Your task to perform on an android device: open app "Upside-Cash back on gas & food" (install if not already installed), go to login, and select forgot password Image 0: 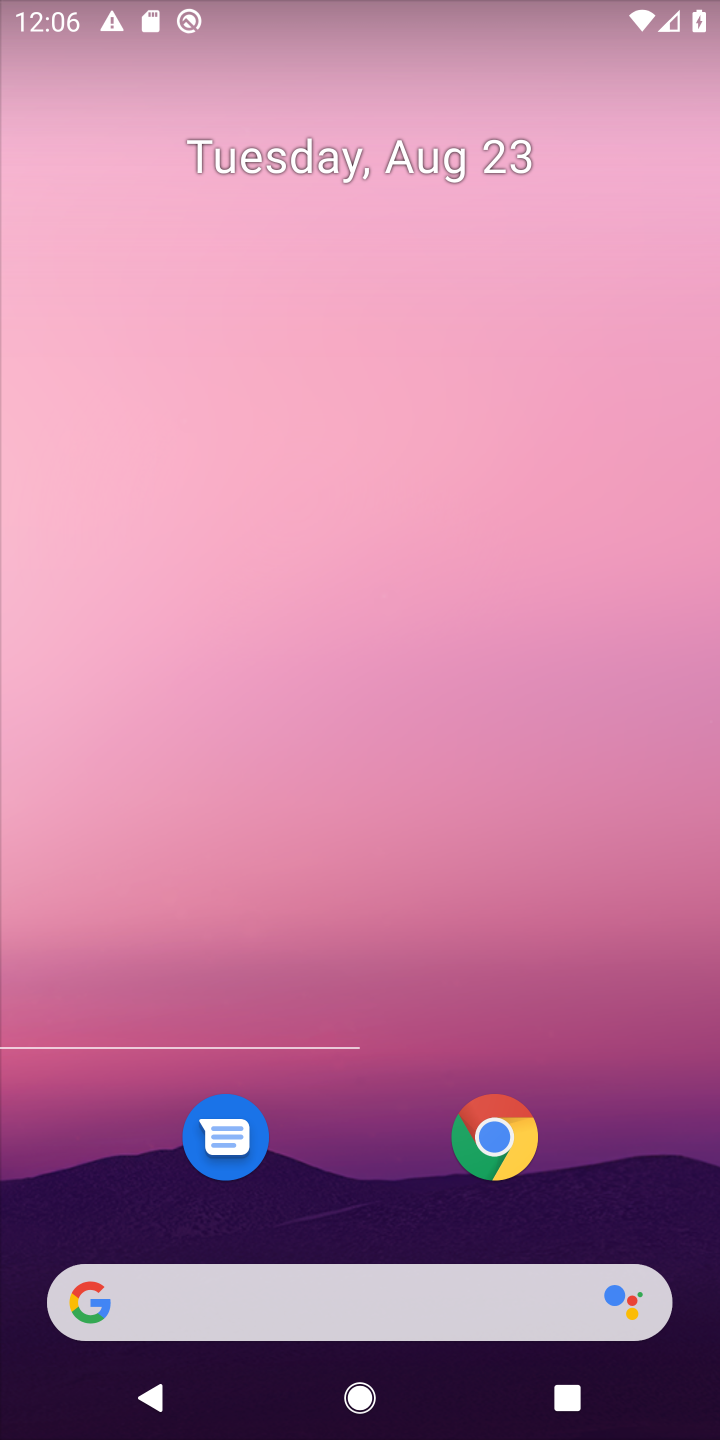
Step 0: press home button
Your task to perform on an android device: open app "Upside-Cash back on gas & food" (install if not already installed), go to login, and select forgot password Image 1: 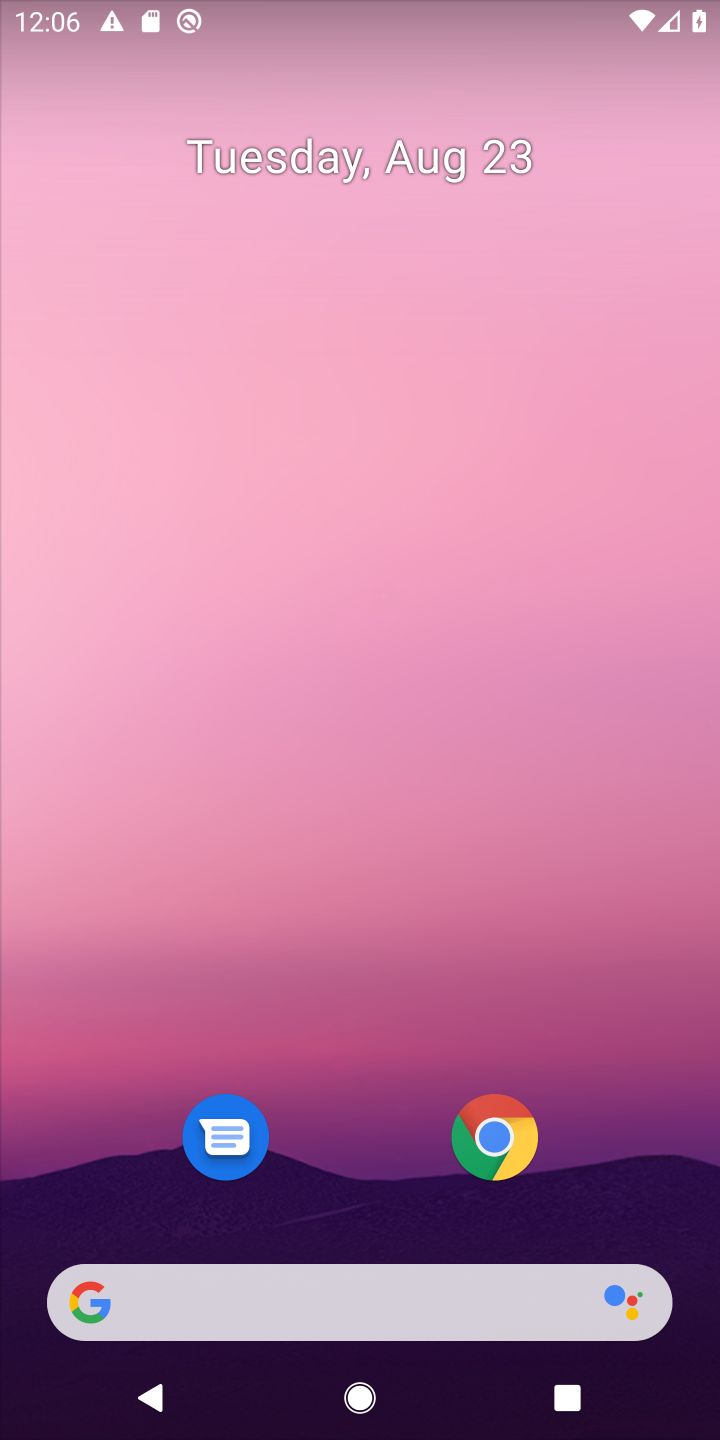
Step 1: drag from (318, 1005) to (475, 18)
Your task to perform on an android device: open app "Upside-Cash back on gas & food" (install if not already installed), go to login, and select forgot password Image 2: 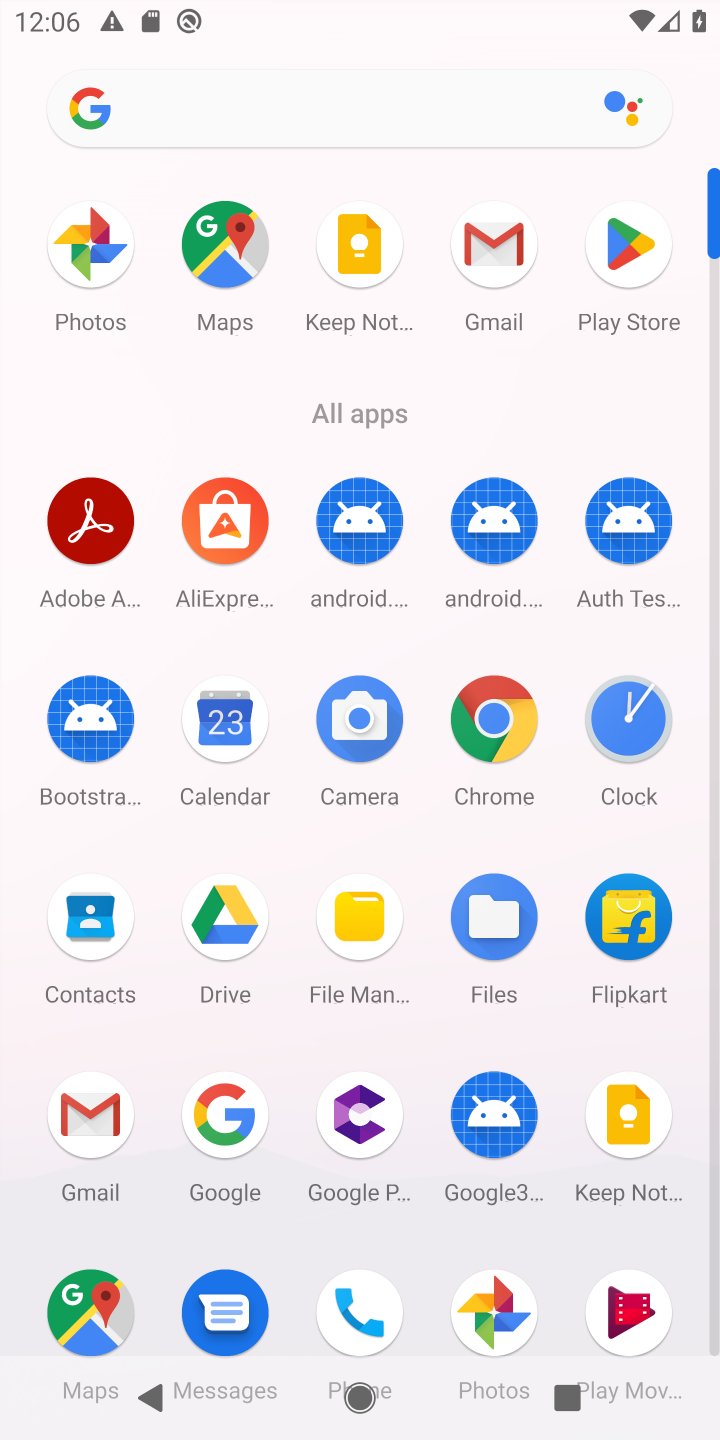
Step 2: click (629, 254)
Your task to perform on an android device: open app "Upside-Cash back on gas & food" (install if not already installed), go to login, and select forgot password Image 3: 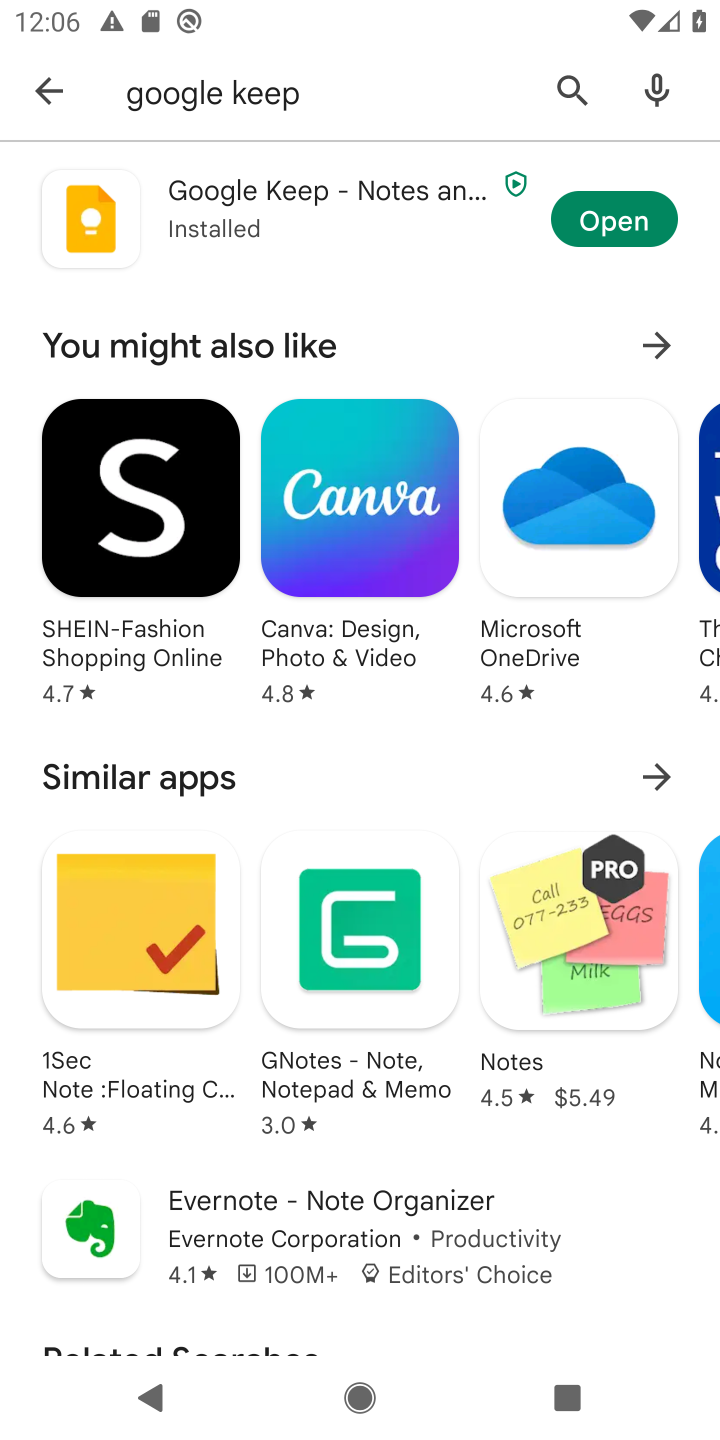
Step 3: click (44, 89)
Your task to perform on an android device: open app "Upside-Cash back on gas & food" (install if not already installed), go to login, and select forgot password Image 4: 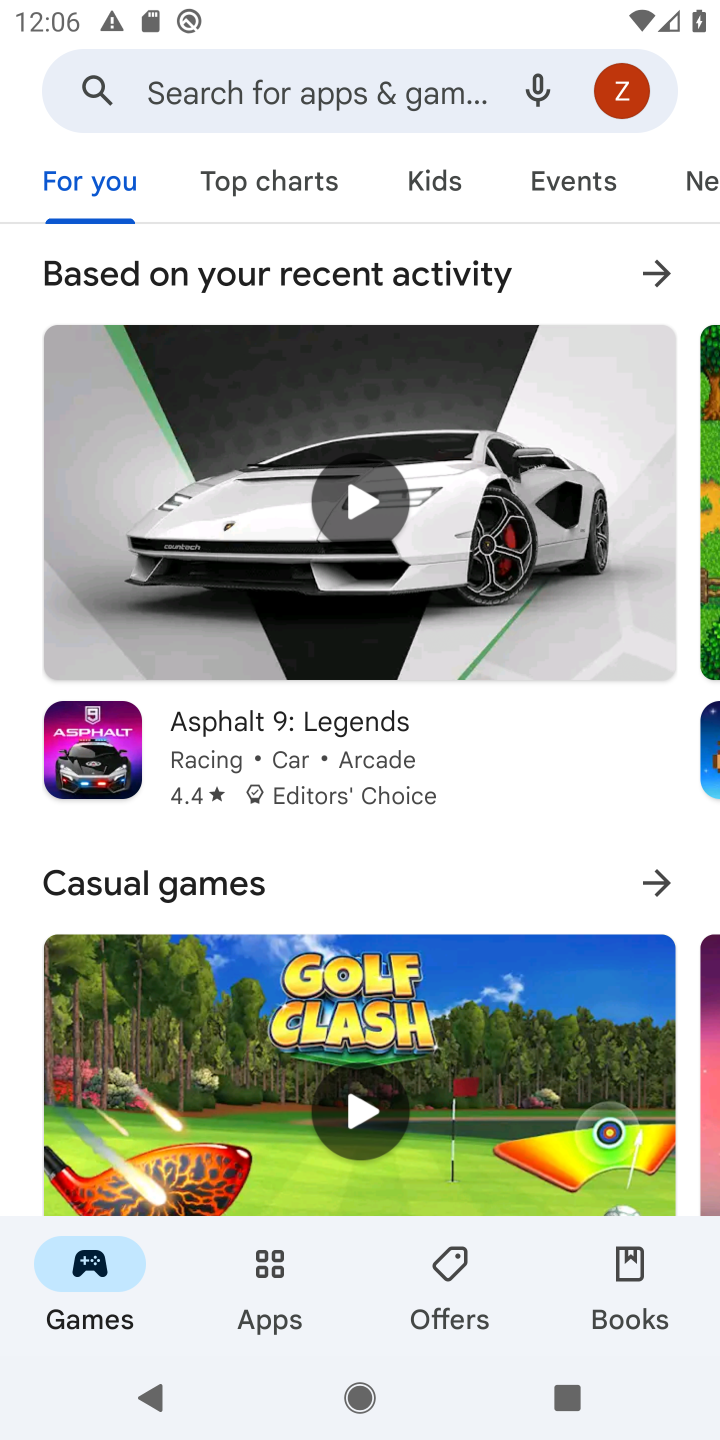
Step 4: click (296, 89)
Your task to perform on an android device: open app "Upside-Cash back on gas & food" (install if not already installed), go to login, and select forgot password Image 5: 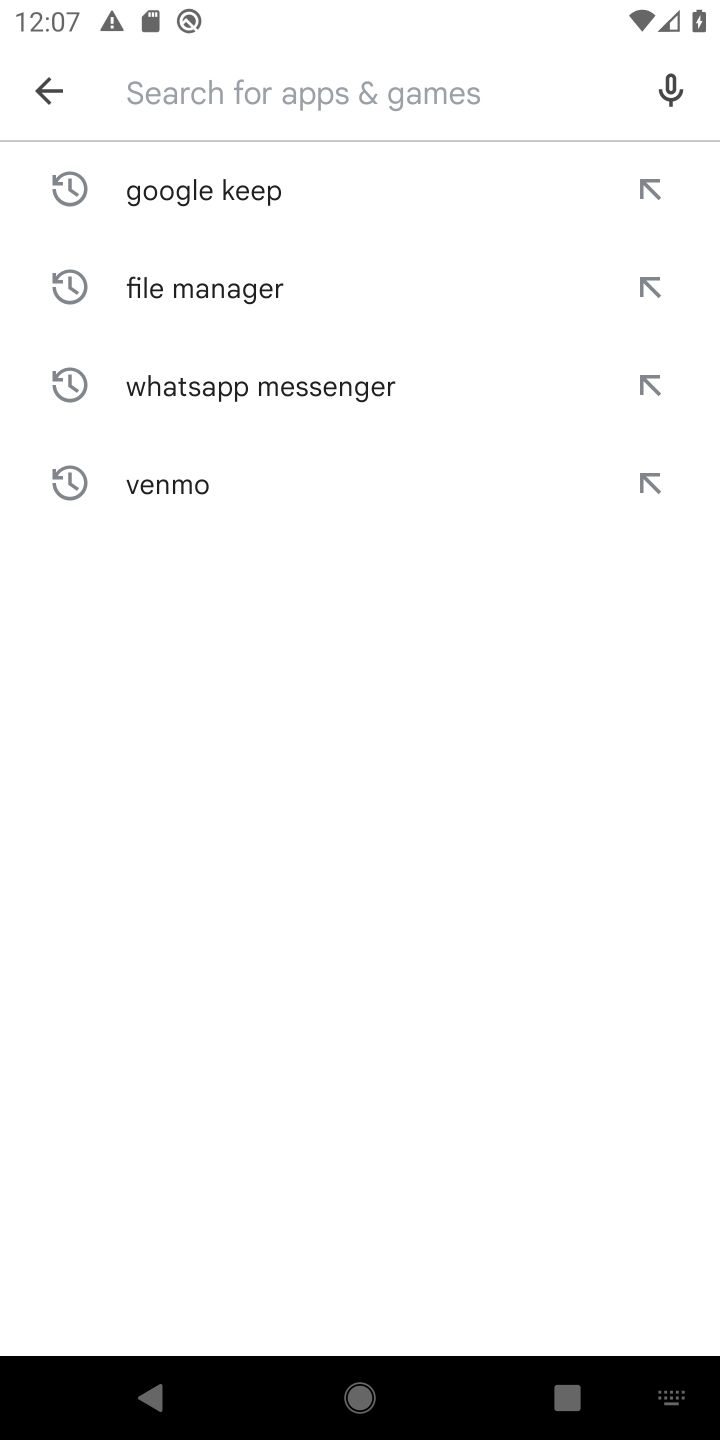
Step 5: type "Upside-Cash back on gas & food"
Your task to perform on an android device: open app "Upside-Cash back on gas & food" (install if not already installed), go to login, and select forgot password Image 6: 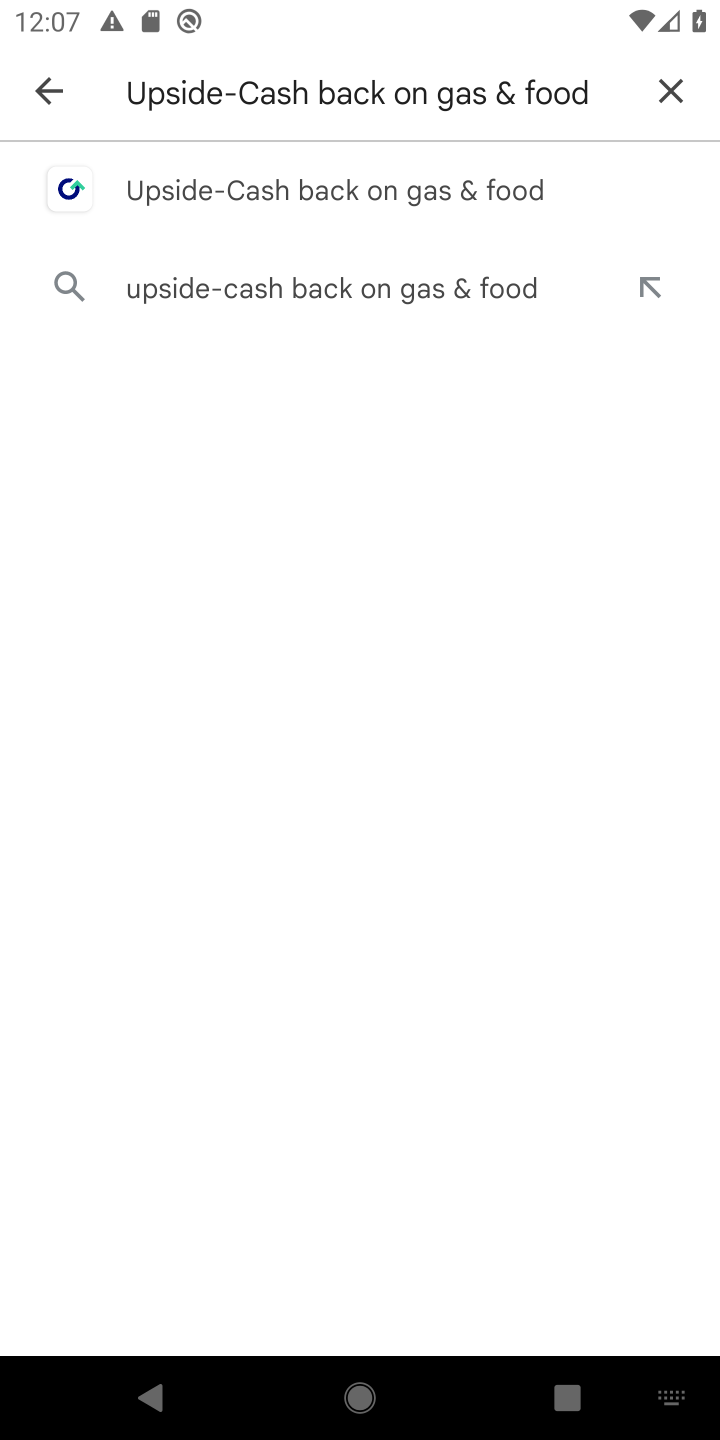
Step 6: click (334, 189)
Your task to perform on an android device: open app "Upside-Cash back on gas & food" (install if not already installed), go to login, and select forgot password Image 7: 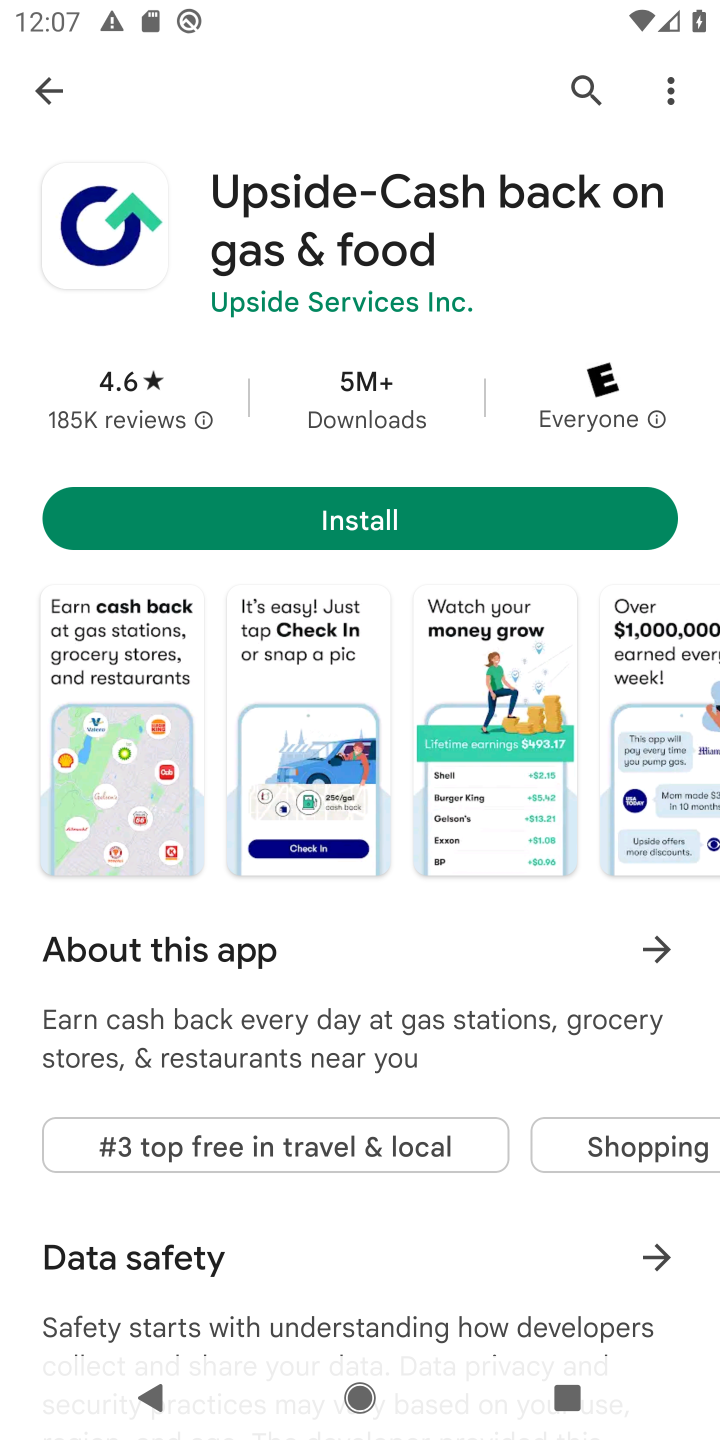
Step 7: click (349, 517)
Your task to perform on an android device: open app "Upside-Cash back on gas & food" (install if not already installed), go to login, and select forgot password Image 8: 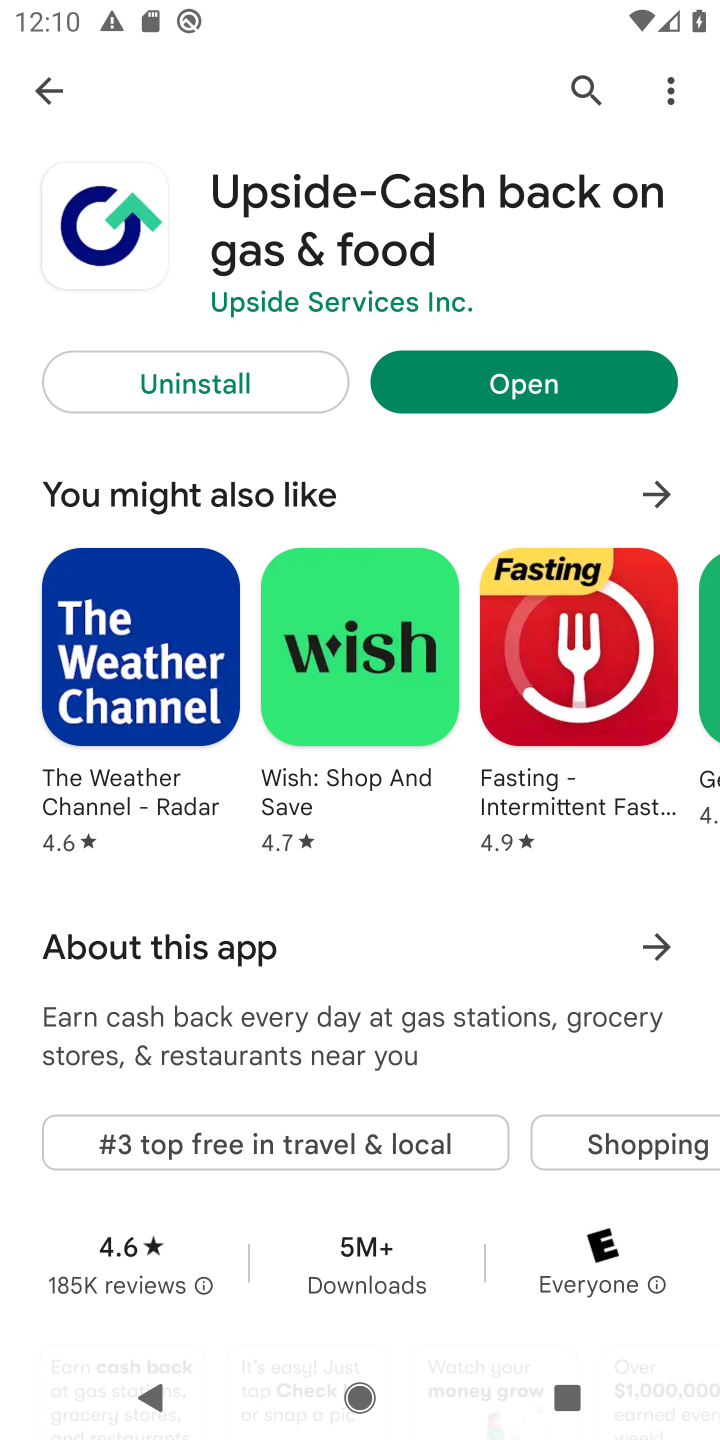
Step 8: click (507, 384)
Your task to perform on an android device: open app "Upside-Cash back on gas & food" (install if not already installed), go to login, and select forgot password Image 9: 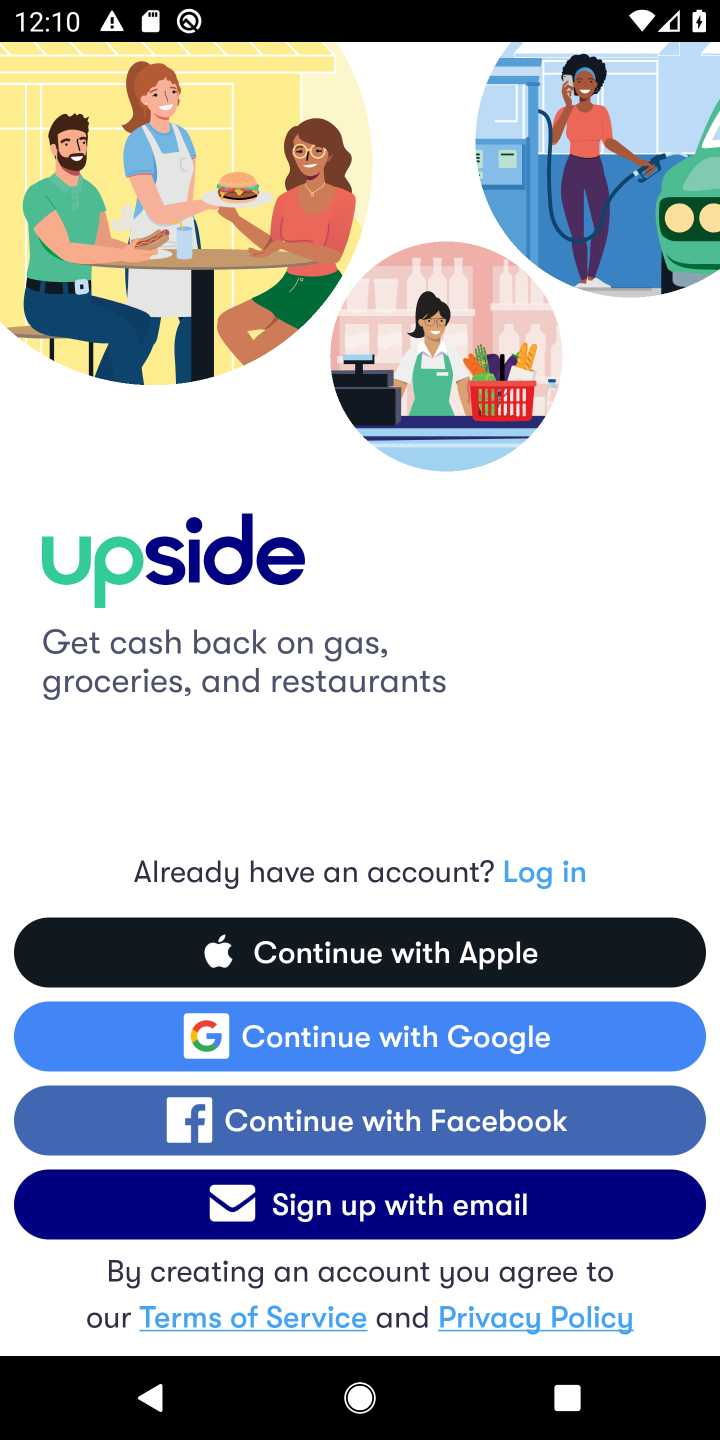
Step 9: task complete